Your task to perform on an android device: Open calendar and show me the third week of next month Image 0: 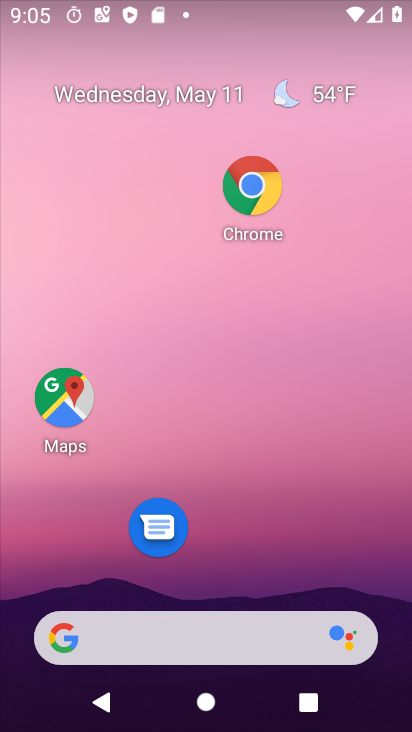
Step 0: drag from (248, 536) to (218, 77)
Your task to perform on an android device: Open calendar and show me the third week of next month Image 1: 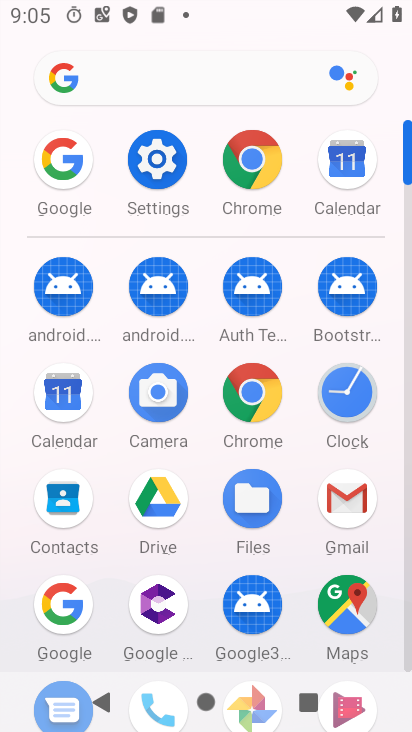
Step 1: click (63, 389)
Your task to perform on an android device: Open calendar and show me the third week of next month Image 2: 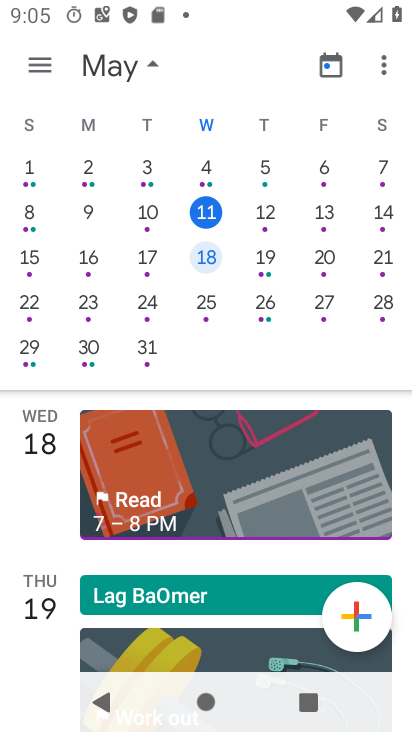
Step 2: drag from (350, 355) to (0, 352)
Your task to perform on an android device: Open calendar and show me the third week of next month Image 3: 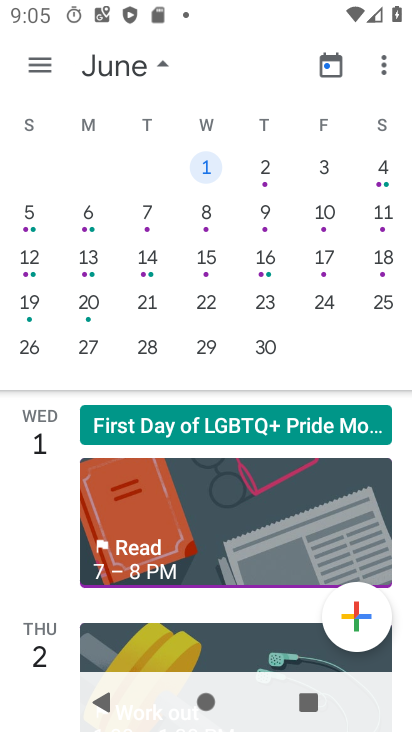
Step 3: click (202, 256)
Your task to perform on an android device: Open calendar and show me the third week of next month Image 4: 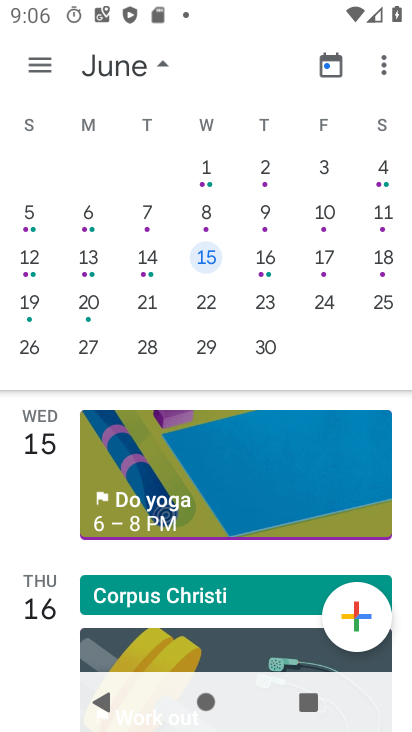
Step 4: task complete